Your task to perform on an android device: Open settings on Google Maps Image 0: 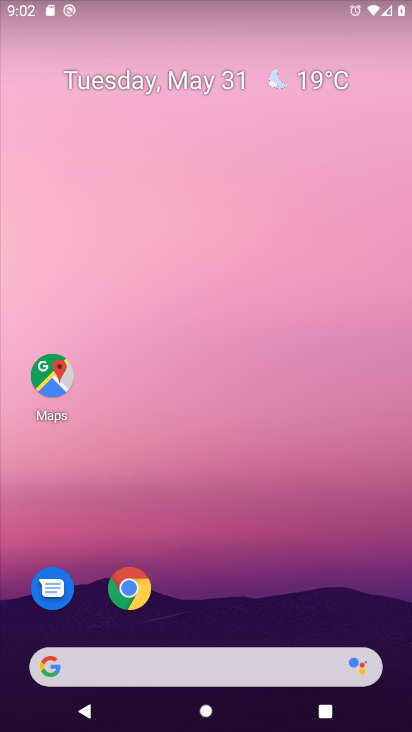
Step 0: press home button
Your task to perform on an android device: Open settings on Google Maps Image 1: 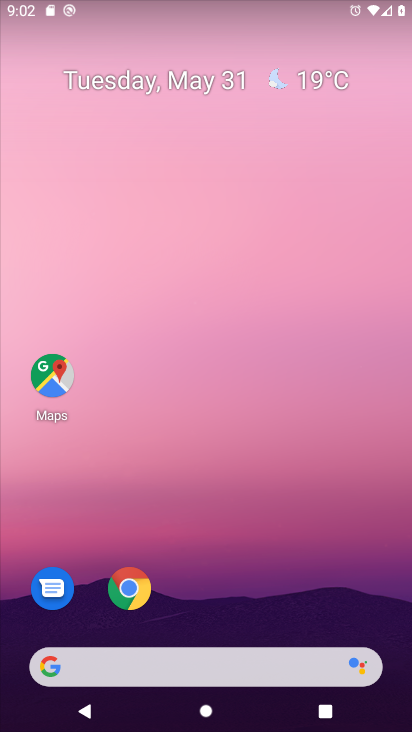
Step 1: click (55, 370)
Your task to perform on an android device: Open settings on Google Maps Image 2: 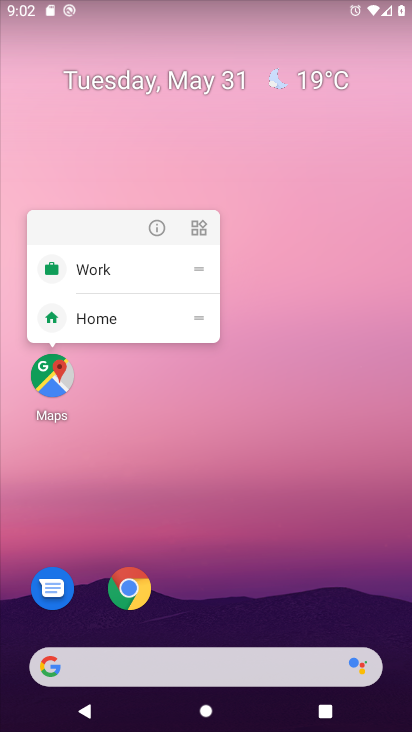
Step 2: click (53, 378)
Your task to perform on an android device: Open settings on Google Maps Image 3: 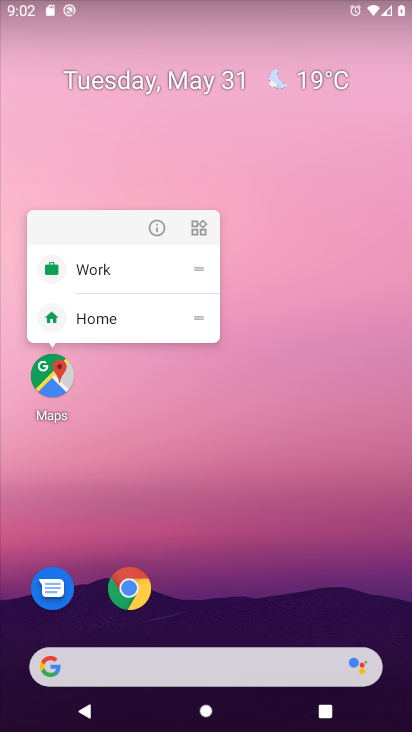
Step 3: click (53, 378)
Your task to perform on an android device: Open settings on Google Maps Image 4: 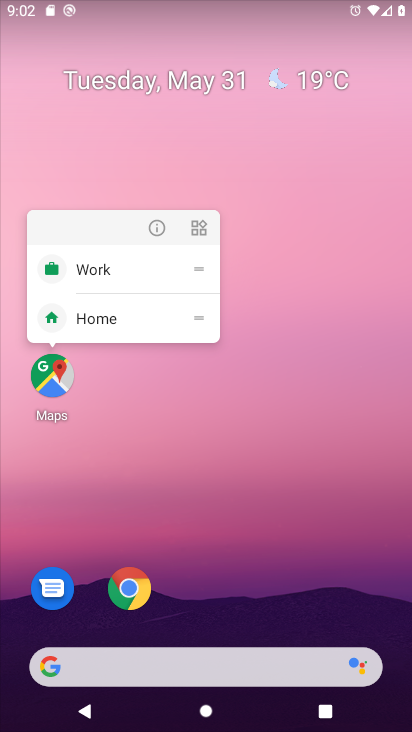
Step 4: click (53, 379)
Your task to perform on an android device: Open settings on Google Maps Image 5: 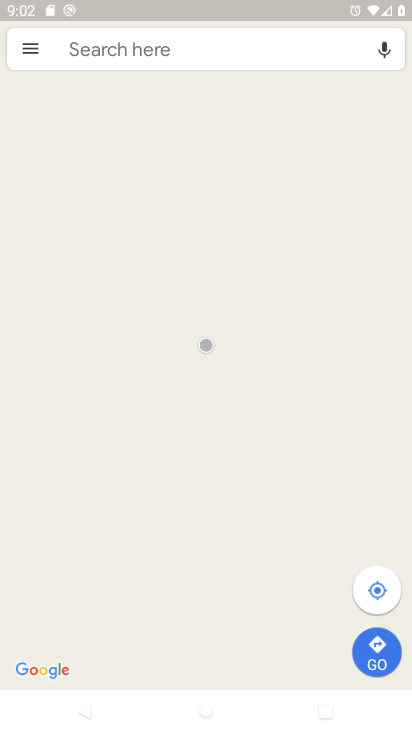
Step 5: click (28, 43)
Your task to perform on an android device: Open settings on Google Maps Image 6: 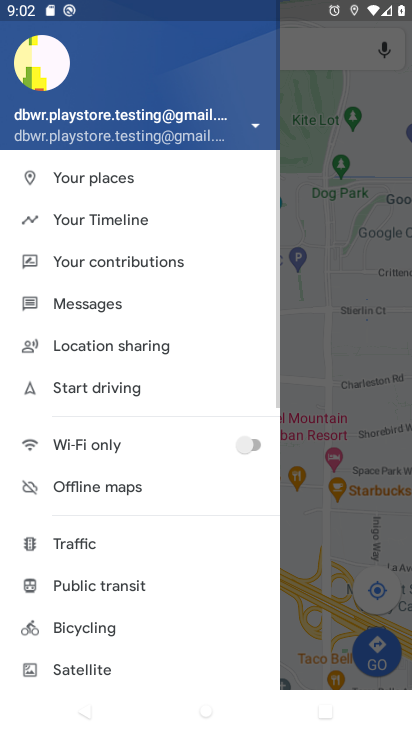
Step 6: drag from (147, 638) to (214, 240)
Your task to perform on an android device: Open settings on Google Maps Image 7: 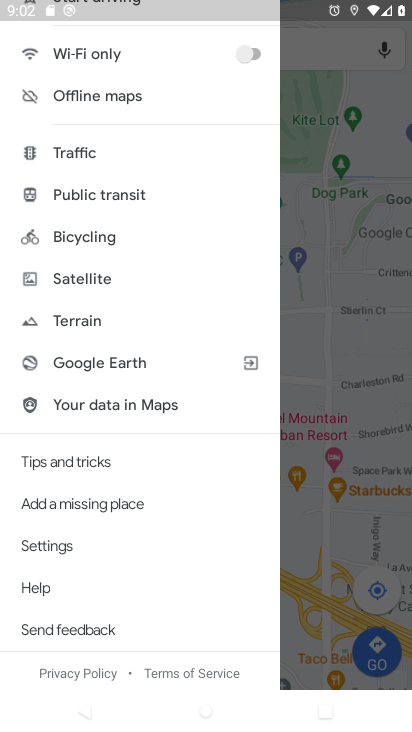
Step 7: click (62, 542)
Your task to perform on an android device: Open settings on Google Maps Image 8: 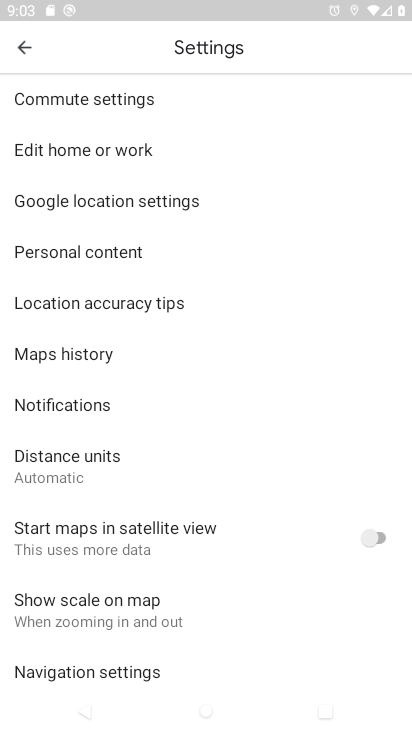
Step 8: task complete